Your task to perform on an android device: Find coffee shops on Maps Image 0: 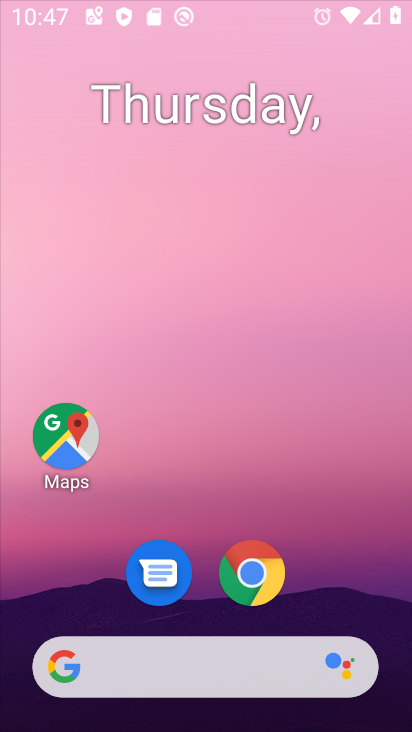
Step 0: drag from (326, 568) to (309, 284)
Your task to perform on an android device: Find coffee shops on Maps Image 1: 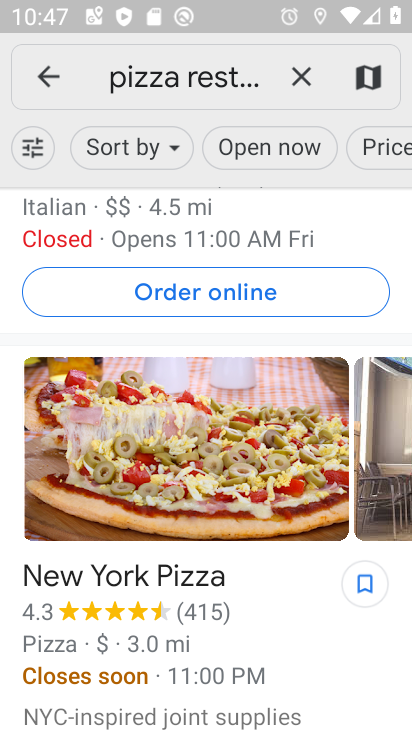
Step 1: click (234, 70)
Your task to perform on an android device: Find coffee shops on Maps Image 2: 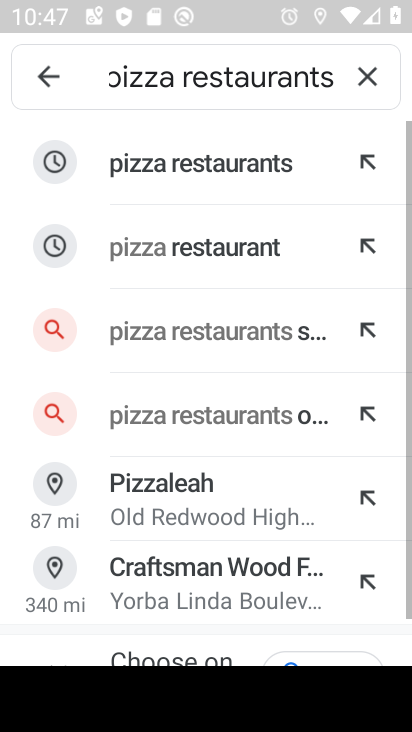
Step 2: click (368, 77)
Your task to perform on an android device: Find coffee shops on Maps Image 3: 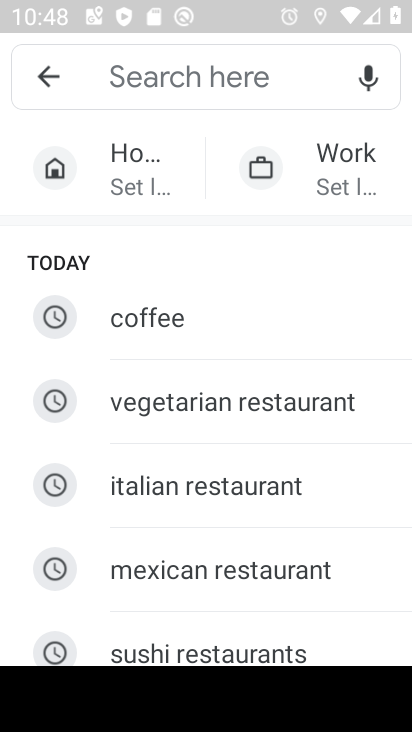
Step 3: type "coffee shops"
Your task to perform on an android device: Find coffee shops on Maps Image 4: 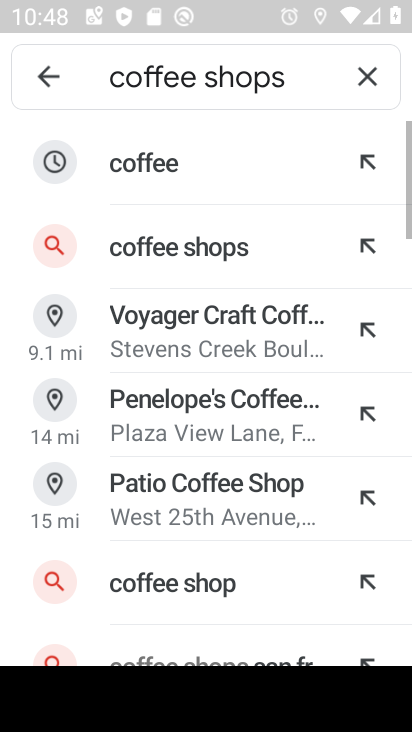
Step 4: click (230, 259)
Your task to perform on an android device: Find coffee shops on Maps Image 5: 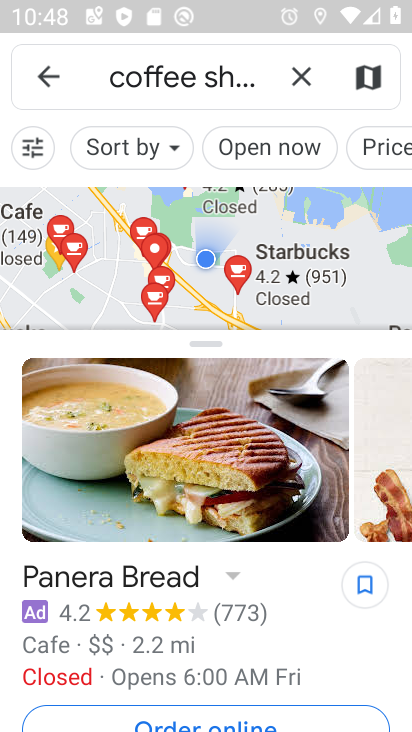
Step 5: task complete